Your task to perform on an android device: turn vacation reply on in the gmail app Image 0: 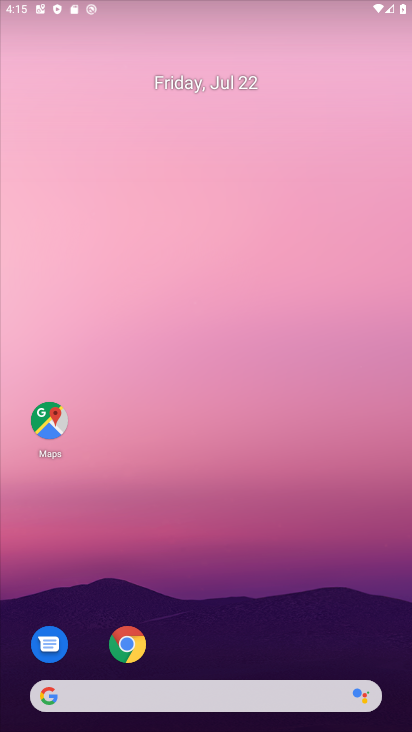
Step 0: drag from (207, 630) to (272, 129)
Your task to perform on an android device: turn vacation reply on in the gmail app Image 1: 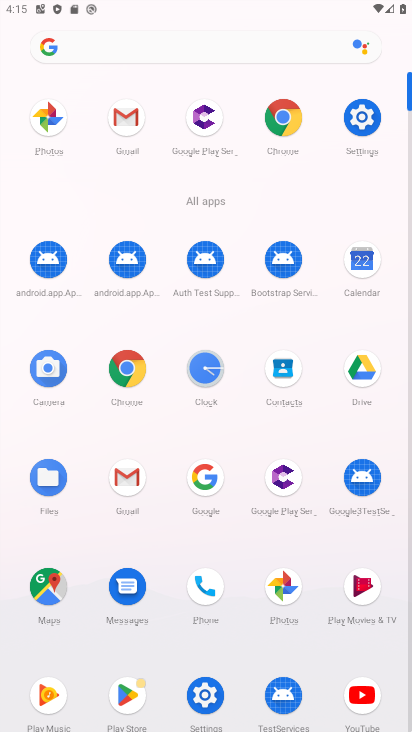
Step 1: click (134, 127)
Your task to perform on an android device: turn vacation reply on in the gmail app Image 2: 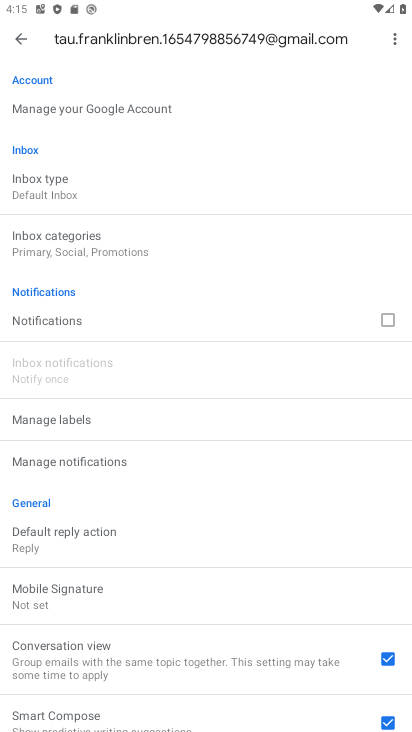
Step 2: drag from (166, 625) to (201, 154)
Your task to perform on an android device: turn vacation reply on in the gmail app Image 3: 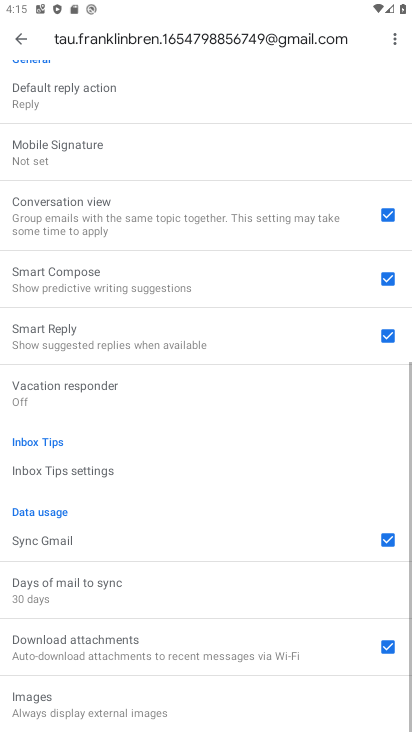
Step 3: click (72, 399)
Your task to perform on an android device: turn vacation reply on in the gmail app Image 4: 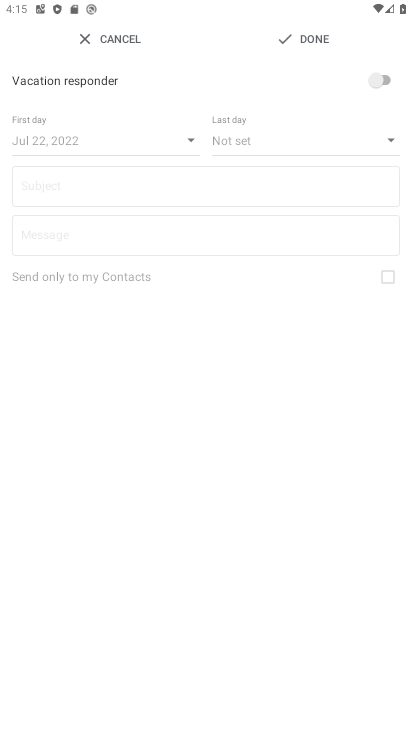
Step 4: click (386, 77)
Your task to perform on an android device: turn vacation reply on in the gmail app Image 5: 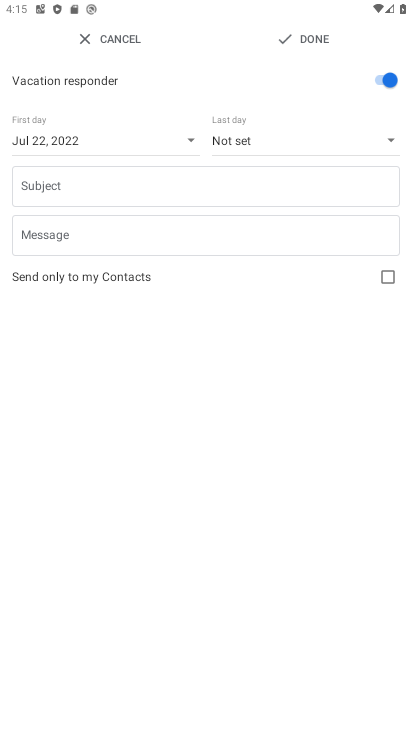
Step 5: task complete